Your task to perform on an android device: Open calendar and show me the first week of next month Image 0: 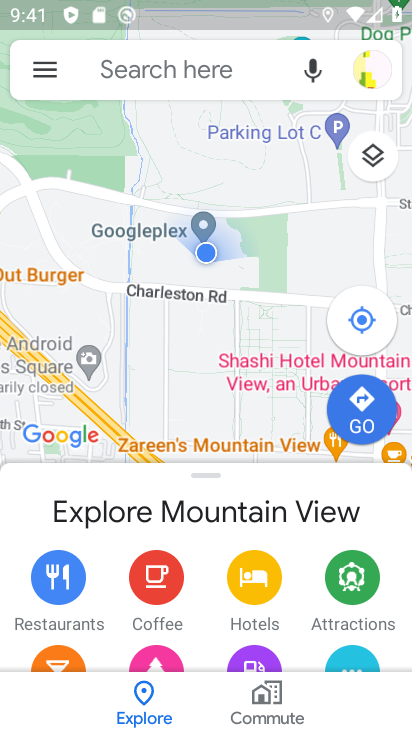
Step 0: press home button
Your task to perform on an android device: Open calendar and show me the first week of next month Image 1: 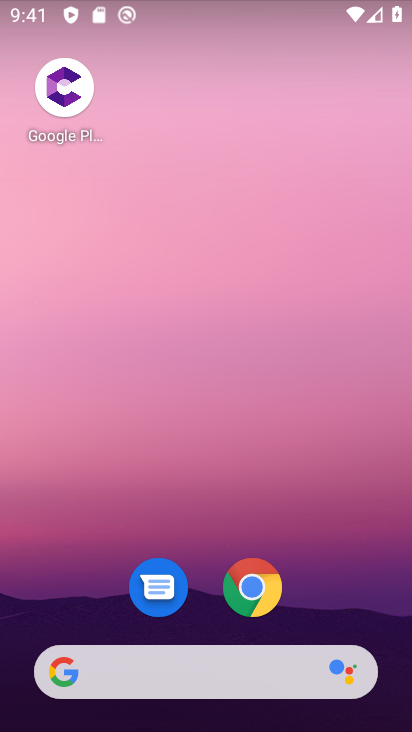
Step 1: drag from (352, 474) to (377, 76)
Your task to perform on an android device: Open calendar and show me the first week of next month Image 2: 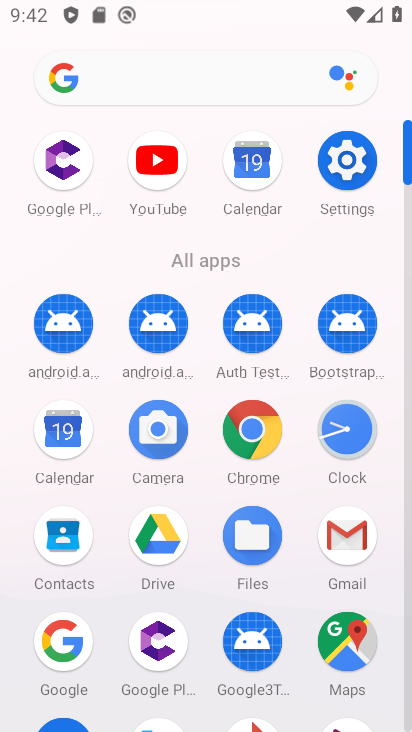
Step 2: click (65, 429)
Your task to perform on an android device: Open calendar and show me the first week of next month Image 3: 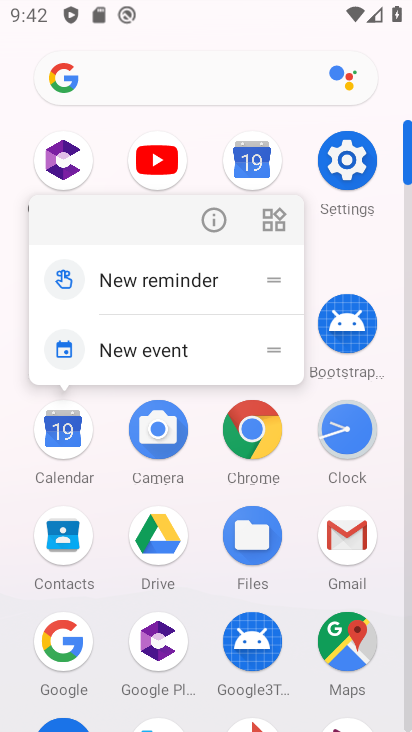
Step 3: click (65, 428)
Your task to perform on an android device: Open calendar and show me the first week of next month Image 4: 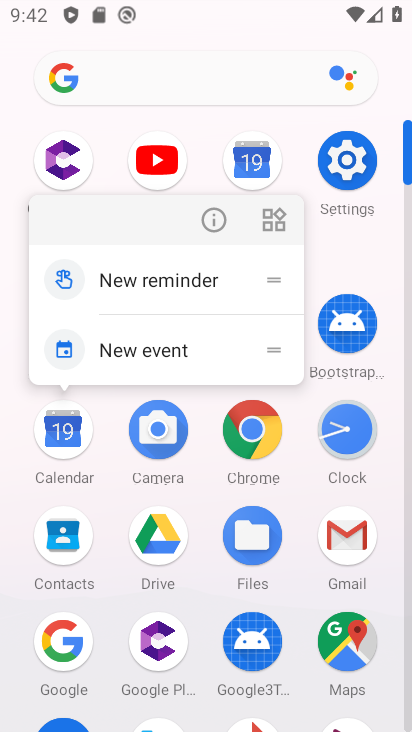
Step 4: click (65, 427)
Your task to perform on an android device: Open calendar and show me the first week of next month Image 5: 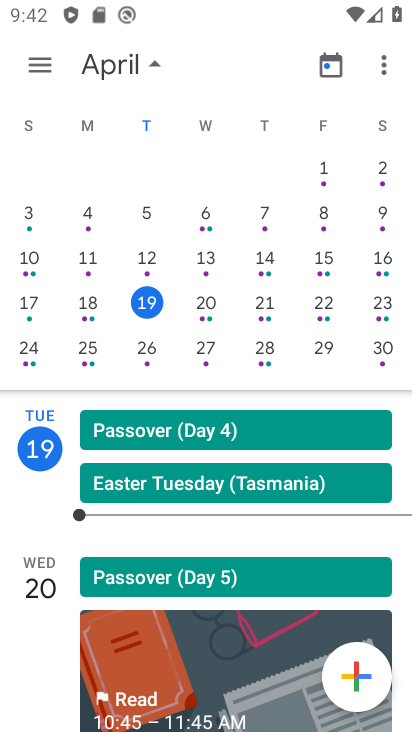
Step 5: drag from (366, 252) to (2, 464)
Your task to perform on an android device: Open calendar and show me the first week of next month Image 6: 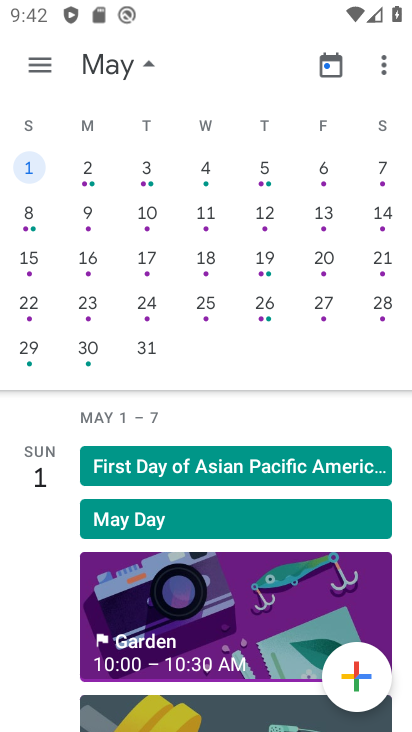
Step 6: click (326, 171)
Your task to perform on an android device: Open calendar and show me the first week of next month Image 7: 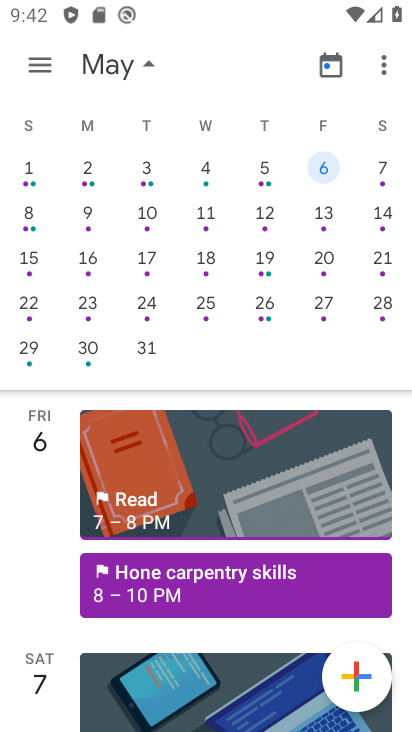
Step 7: task complete